Your task to perform on an android device: Show me popular games on the Play Store Image 0: 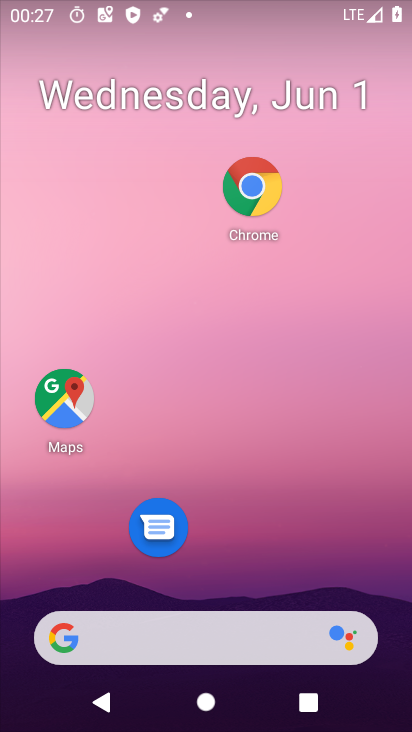
Step 0: drag from (227, 476) to (263, 119)
Your task to perform on an android device: Show me popular games on the Play Store Image 1: 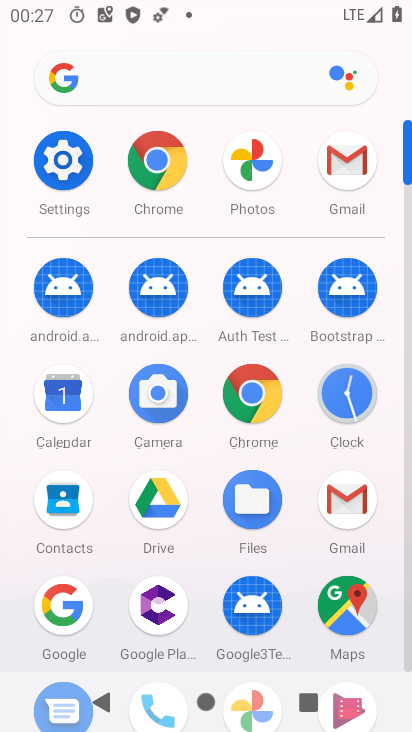
Step 1: drag from (211, 631) to (234, 62)
Your task to perform on an android device: Show me popular games on the Play Store Image 2: 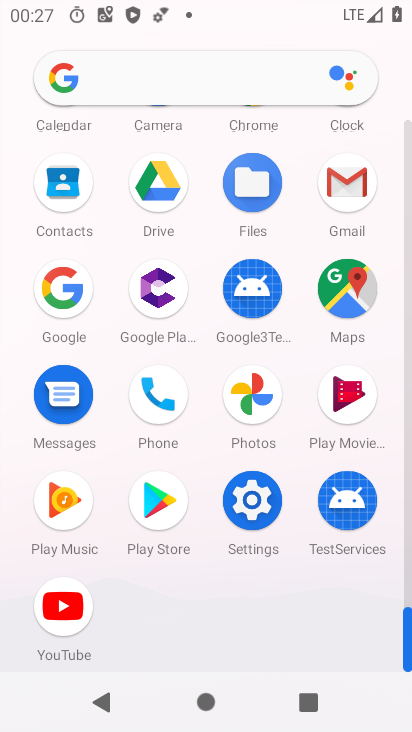
Step 2: click (154, 489)
Your task to perform on an android device: Show me popular games on the Play Store Image 3: 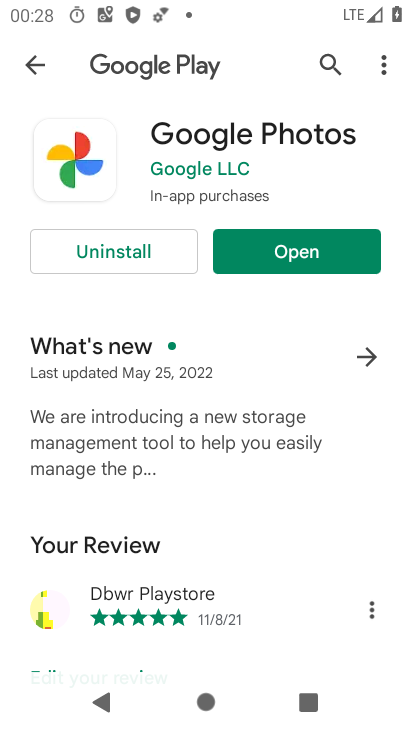
Step 3: drag from (241, 561) to (243, 161)
Your task to perform on an android device: Show me popular games on the Play Store Image 4: 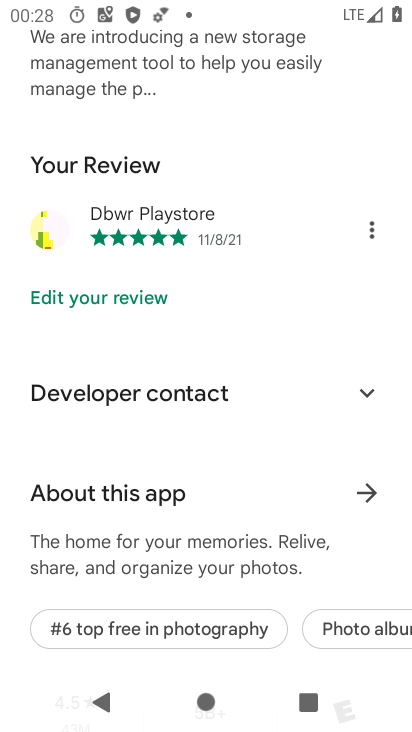
Step 4: drag from (258, 203) to (300, 608)
Your task to perform on an android device: Show me popular games on the Play Store Image 5: 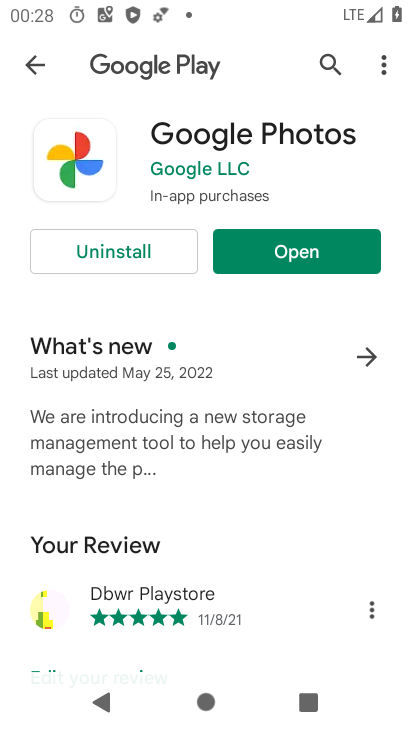
Step 5: press back button
Your task to perform on an android device: Show me popular games on the Play Store Image 6: 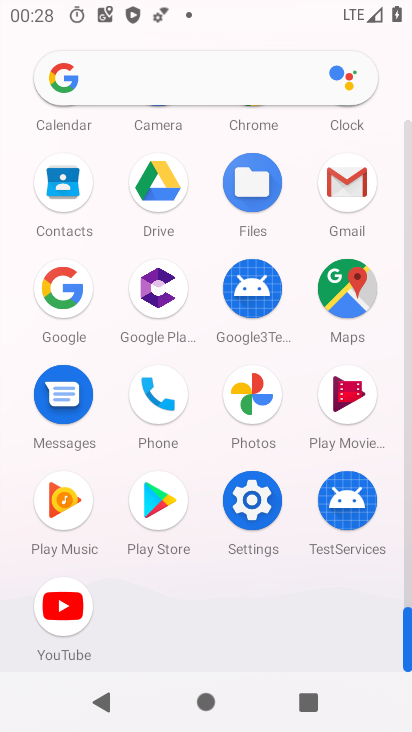
Step 6: click (154, 509)
Your task to perform on an android device: Show me popular games on the Play Store Image 7: 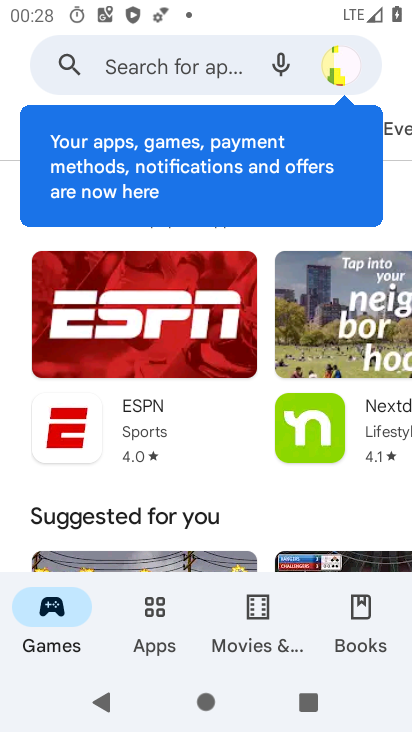
Step 7: drag from (230, 528) to (290, 18)
Your task to perform on an android device: Show me popular games on the Play Store Image 8: 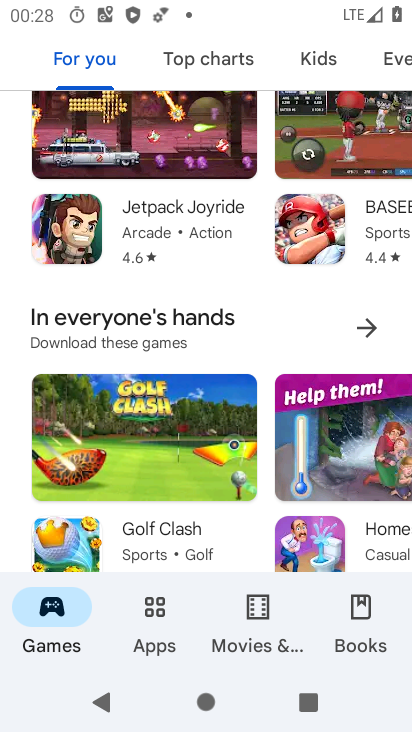
Step 8: drag from (278, 427) to (267, 4)
Your task to perform on an android device: Show me popular games on the Play Store Image 9: 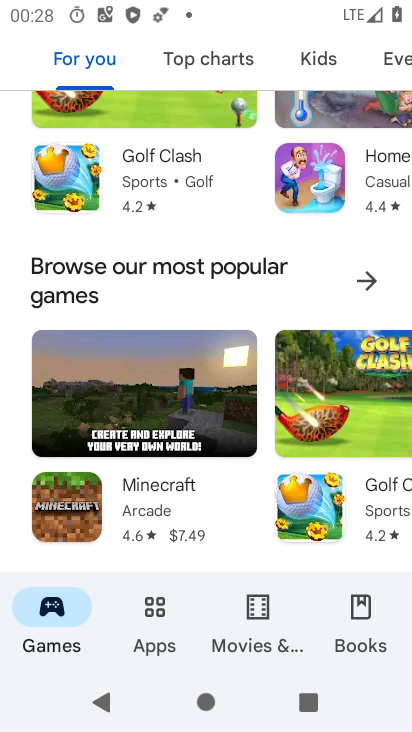
Step 9: click (364, 285)
Your task to perform on an android device: Show me popular games on the Play Store Image 10: 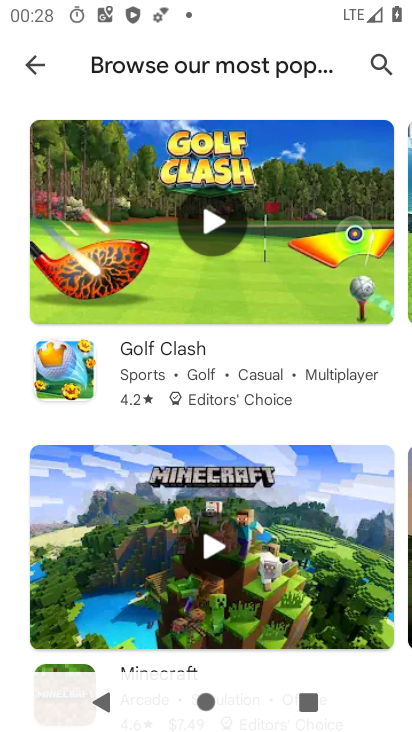
Step 10: task complete